Your task to perform on an android device: Open Youtube and go to "Your channel" Image 0: 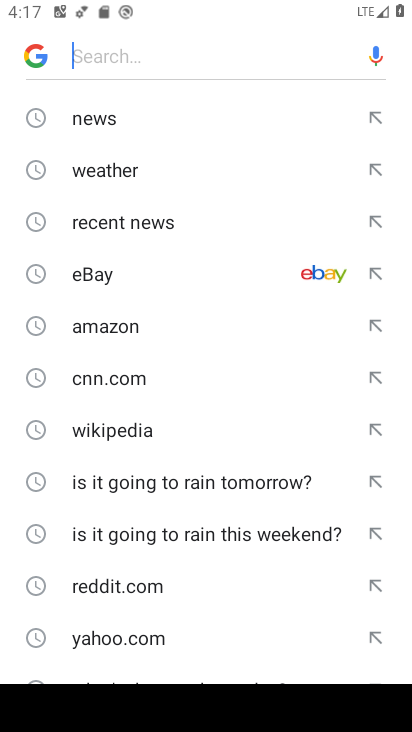
Step 0: press home button
Your task to perform on an android device: Open Youtube and go to "Your channel" Image 1: 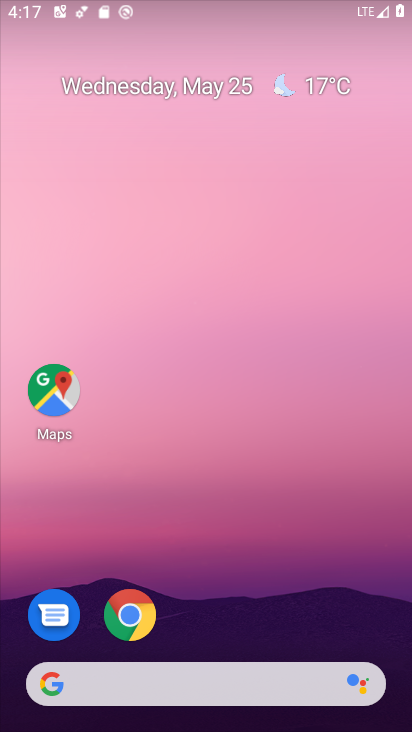
Step 1: drag from (253, 224) to (193, 22)
Your task to perform on an android device: Open Youtube and go to "Your channel" Image 2: 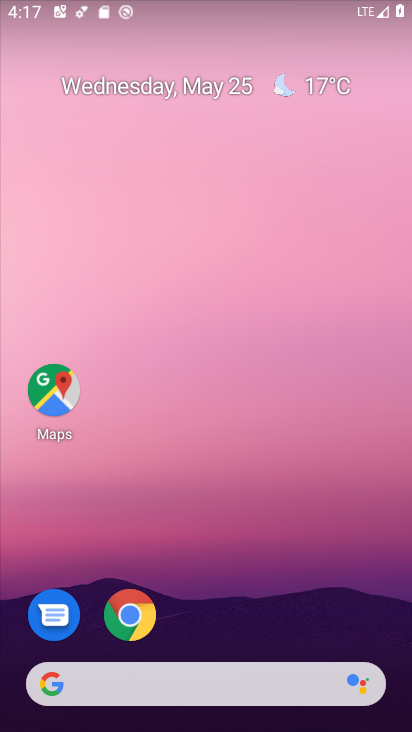
Step 2: drag from (269, 541) to (198, 29)
Your task to perform on an android device: Open Youtube and go to "Your channel" Image 3: 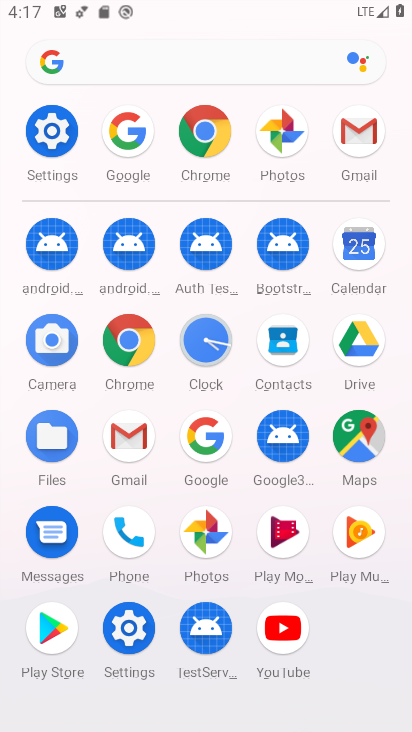
Step 3: click (279, 631)
Your task to perform on an android device: Open Youtube and go to "Your channel" Image 4: 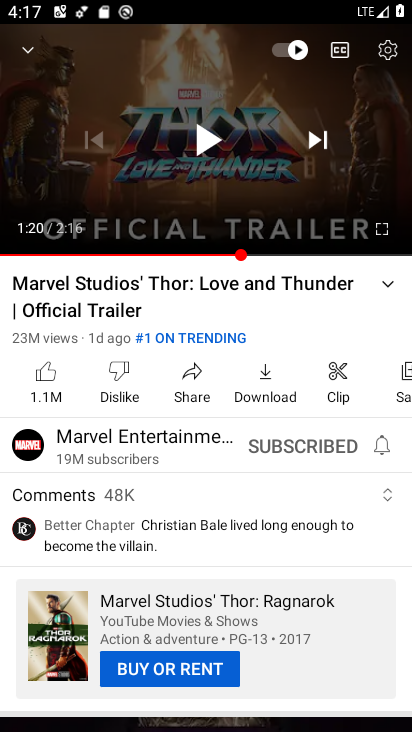
Step 4: press back button
Your task to perform on an android device: Open Youtube and go to "Your channel" Image 5: 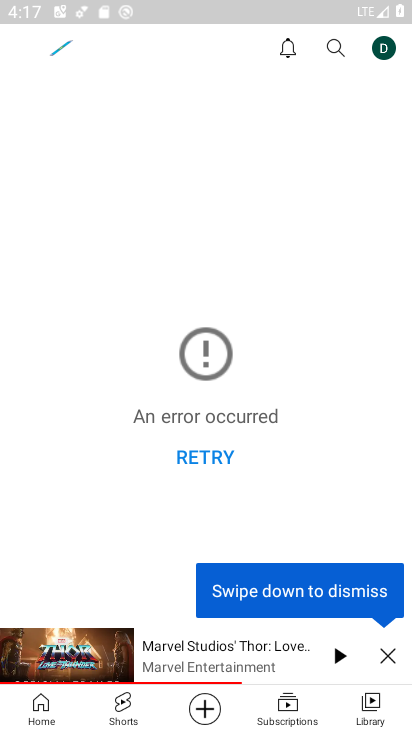
Step 5: click (385, 42)
Your task to perform on an android device: Open Youtube and go to "Your channel" Image 6: 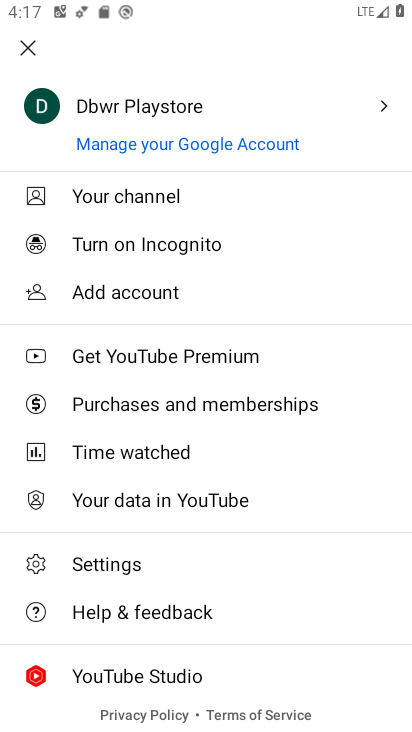
Step 6: click (132, 196)
Your task to perform on an android device: Open Youtube and go to "Your channel" Image 7: 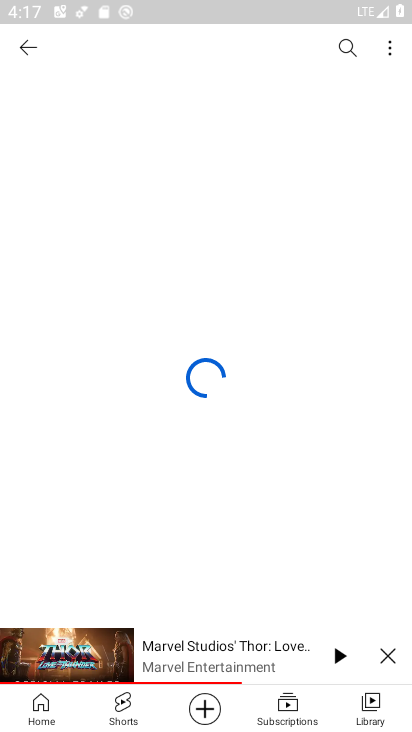
Step 7: task complete